Your task to perform on an android device: turn off improve location accuracy Image 0: 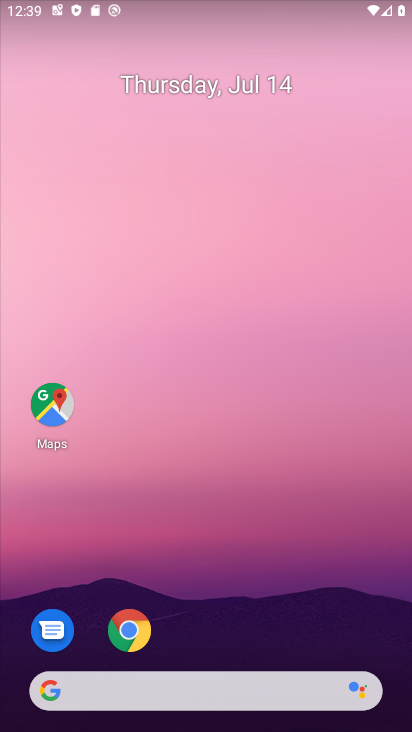
Step 0: drag from (200, 673) to (220, 205)
Your task to perform on an android device: turn off improve location accuracy Image 1: 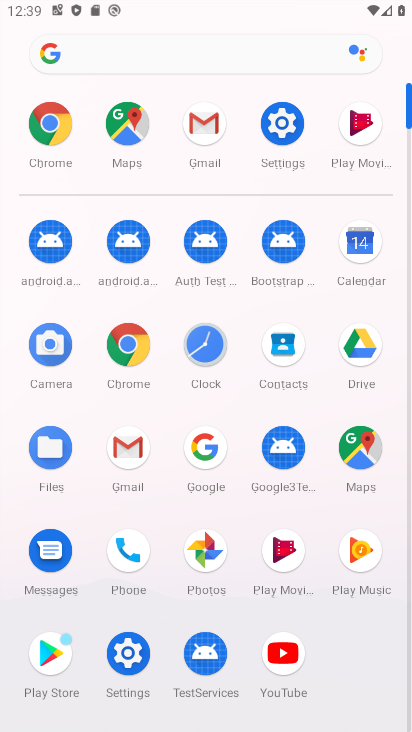
Step 1: click (281, 131)
Your task to perform on an android device: turn off improve location accuracy Image 2: 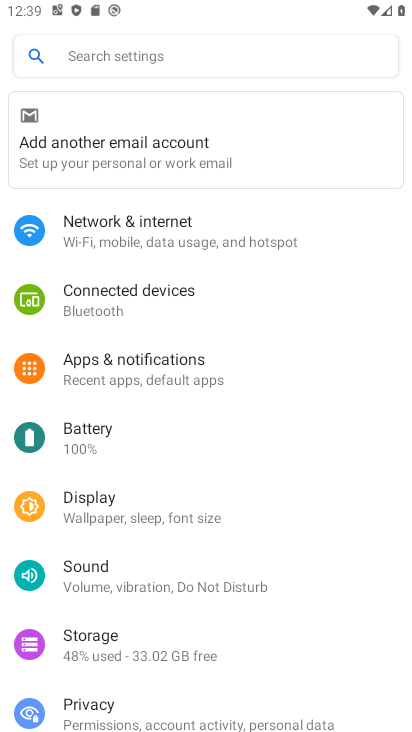
Step 2: drag from (155, 602) to (155, 342)
Your task to perform on an android device: turn off improve location accuracy Image 3: 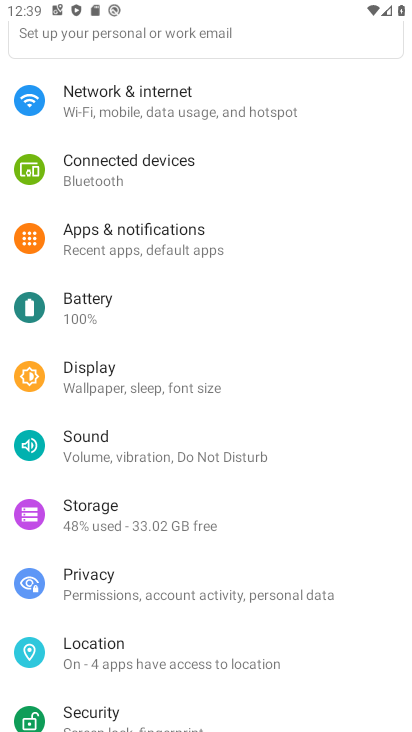
Step 3: click (104, 649)
Your task to perform on an android device: turn off improve location accuracy Image 4: 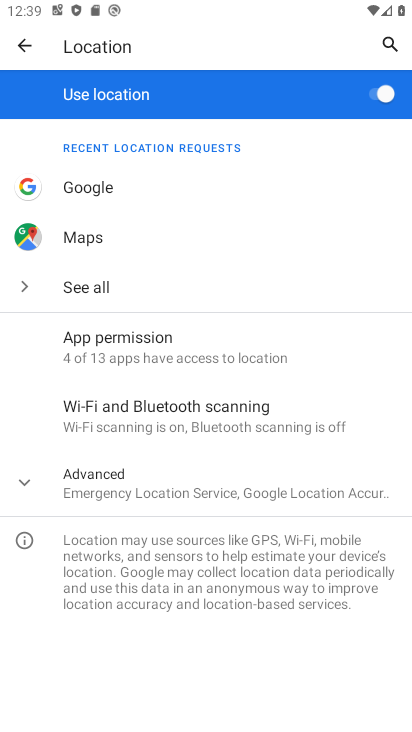
Step 4: click (121, 489)
Your task to perform on an android device: turn off improve location accuracy Image 5: 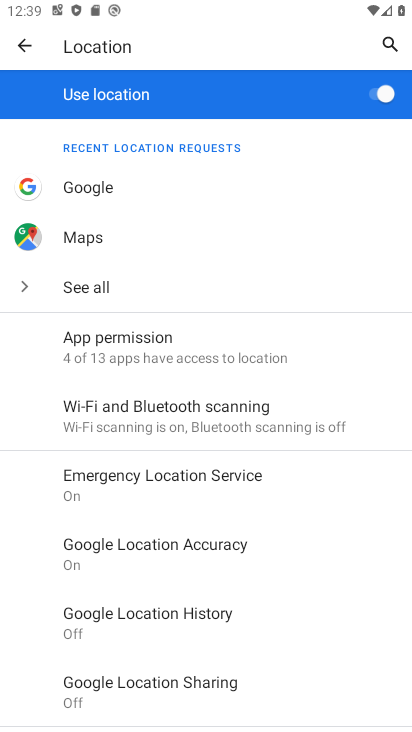
Step 5: click (151, 546)
Your task to perform on an android device: turn off improve location accuracy Image 6: 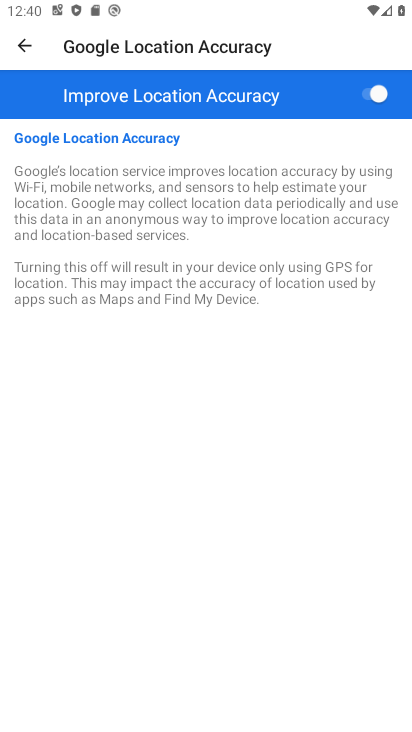
Step 6: click (365, 93)
Your task to perform on an android device: turn off improve location accuracy Image 7: 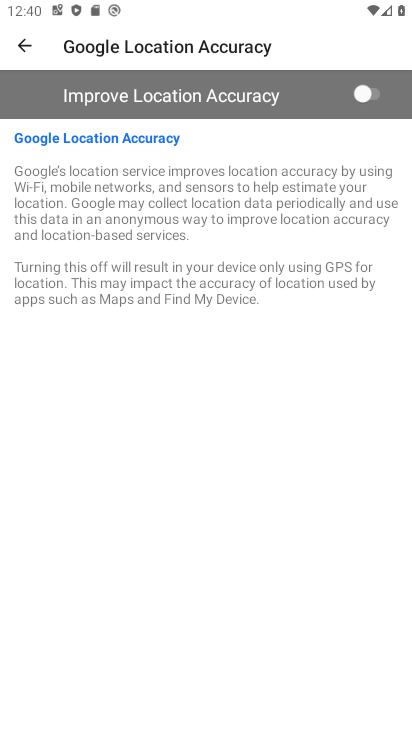
Step 7: task complete